Your task to perform on an android device: turn off priority inbox in the gmail app Image 0: 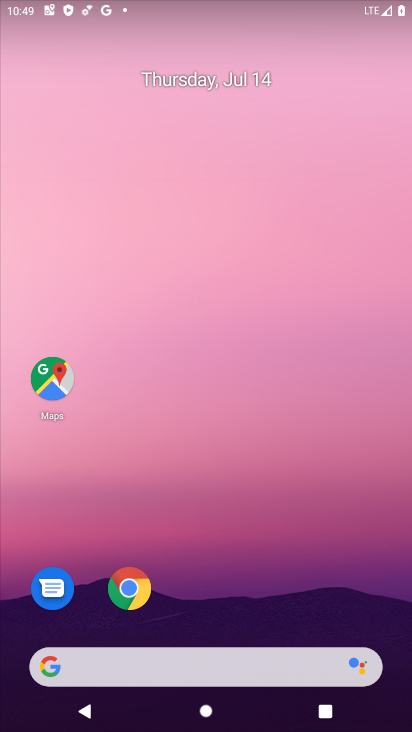
Step 0: drag from (129, 669) to (295, 150)
Your task to perform on an android device: turn off priority inbox in the gmail app Image 1: 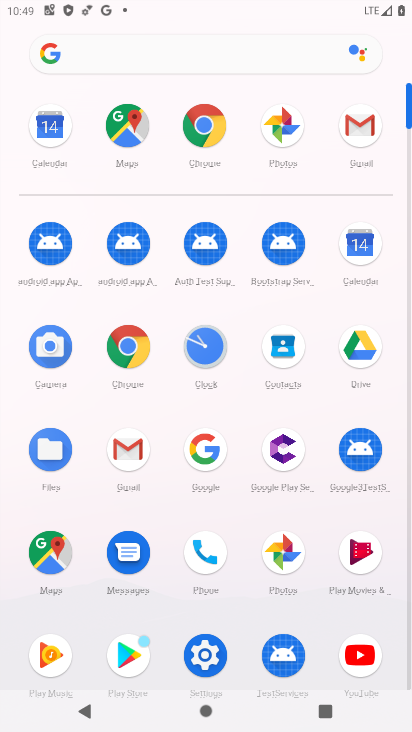
Step 1: click (360, 134)
Your task to perform on an android device: turn off priority inbox in the gmail app Image 2: 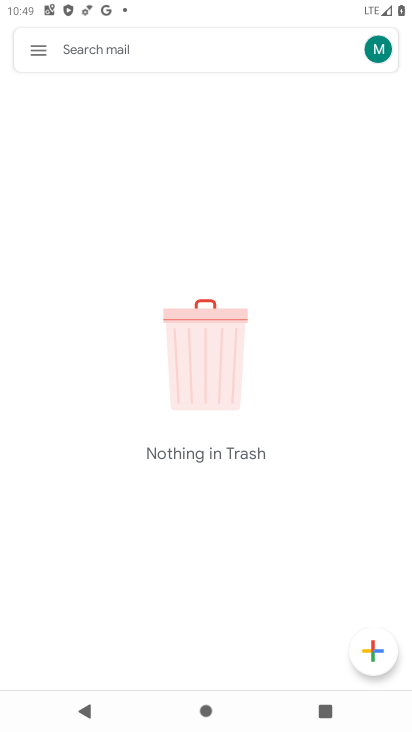
Step 2: click (33, 48)
Your task to perform on an android device: turn off priority inbox in the gmail app Image 3: 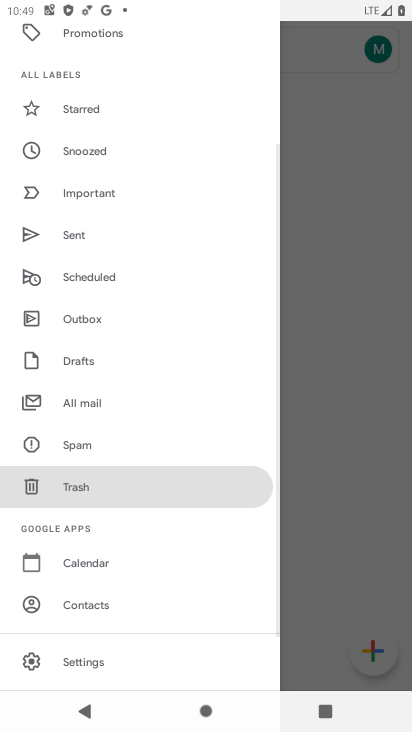
Step 3: click (86, 668)
Your task to perform on an android device: turn off priority inbox in the gmail app Image 4: 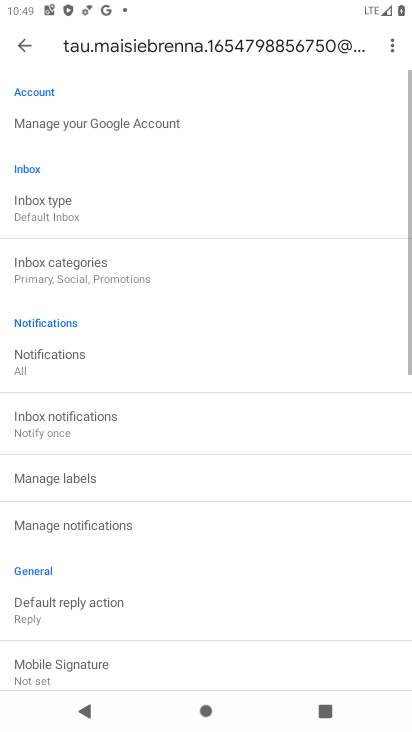
Step 4: click (56, 208)
Your task to perform on an android device: turn off priority inbox in the gmail app Image 5: 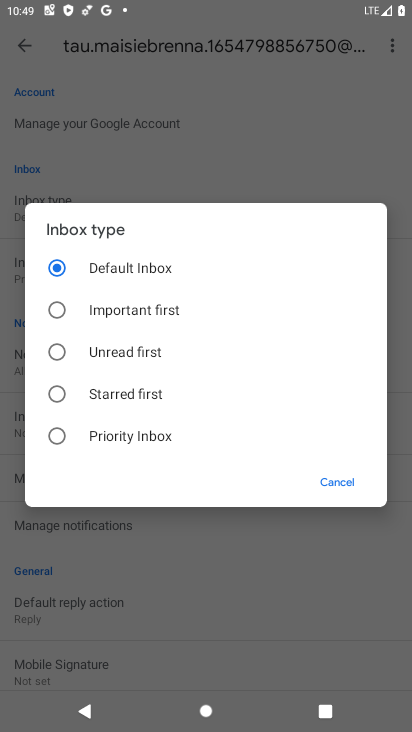
Step 5: task complete